Your task to perform on an android device: create a new album in the google photos Image 0: 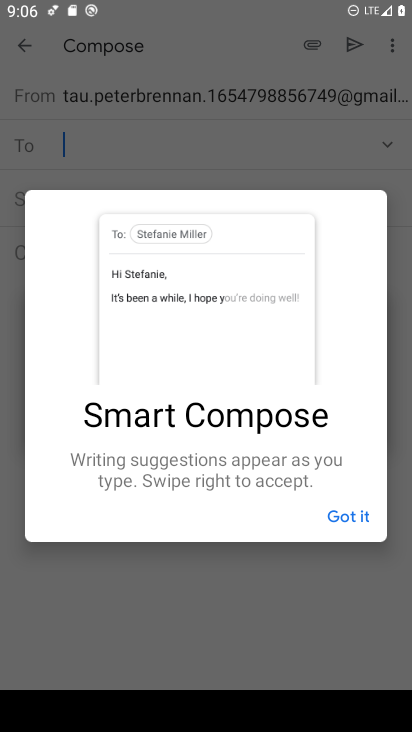
Step 0: press home button
Your task to perform on an android device: create a new album in the google photos Image 1: 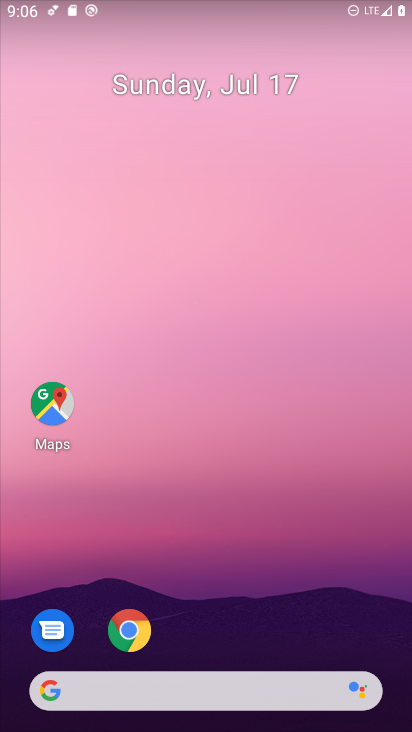
Step 1: drag from (239, 631) to (265, 258)
Your task to perform on an android device: create a new album in the google photos Image 2: 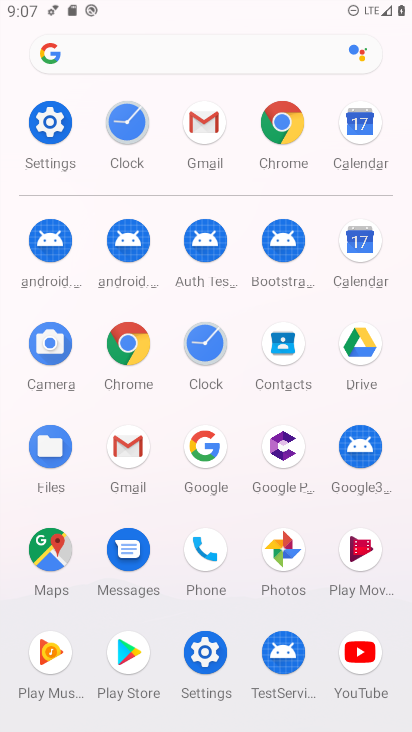
Step 2: click (274, 553)
Your task to perform on an android device: create a new album in the google photos Image 3: 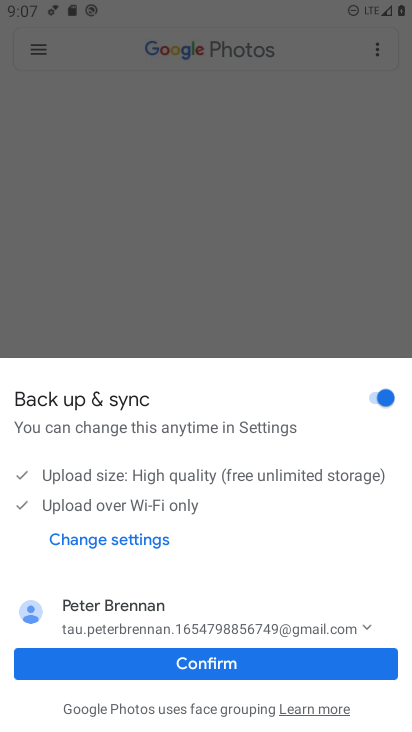
Step 3: click (244, 660)
Your task to perform on an android device: create a new album in the google photos Image 4: 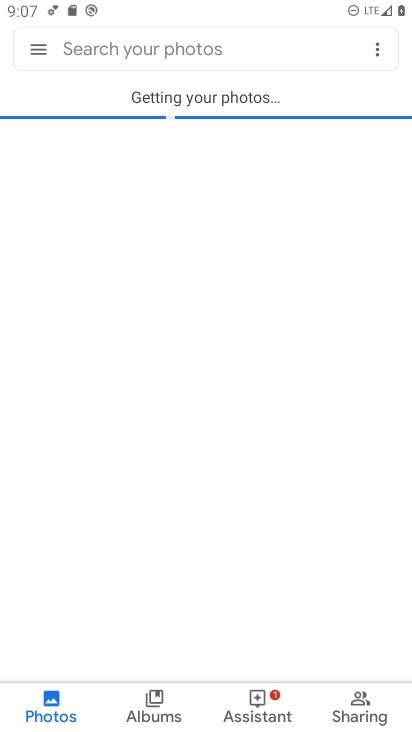
Step 4: click (163, 712)
Your task to perform on an android device: create a new album in the google photos Image 5: 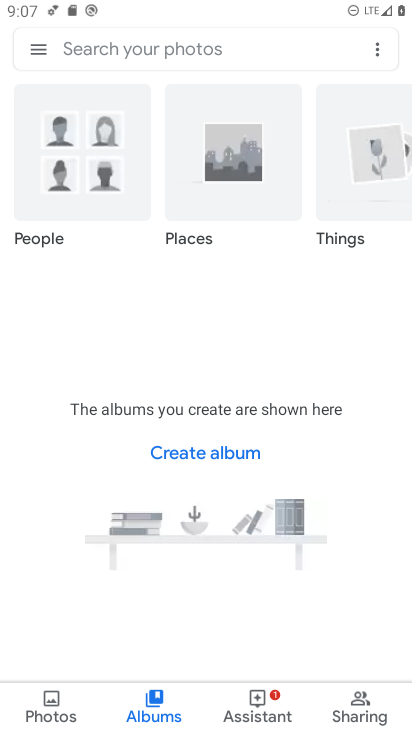
Step 5: click (48, 714)
Your task to perform on an android device: create a new album in the google photos Image 6: 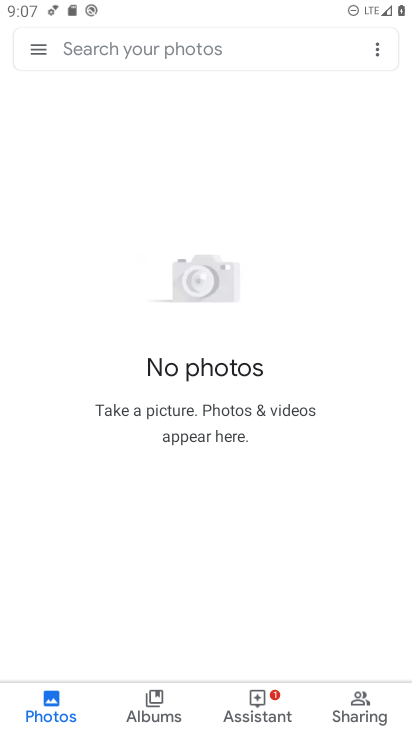
Step 6: click (146, 697)
Your task to perform on an android device: create a new album in the google photos Image 7: 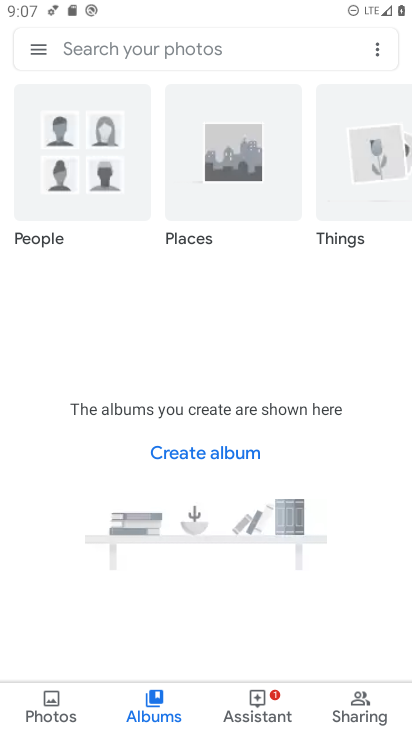
Step 7: click (61, 701)
Your task to perform on an android device: create a new album in the google photos Image 8: 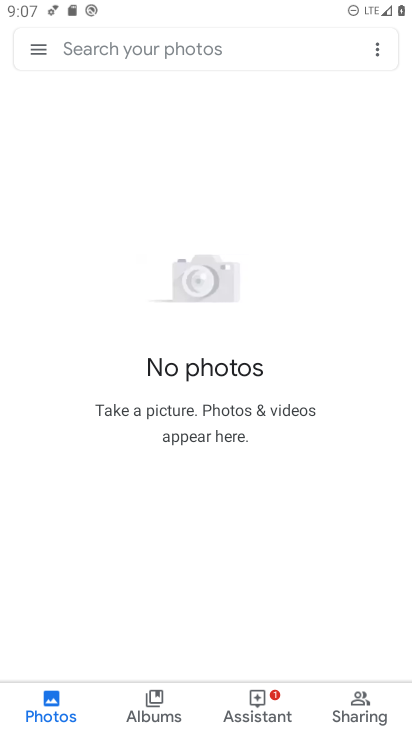
Step 8: task complete